Your task to perform on an android device: open the mobile data screen to see how much data has been used Image 0: 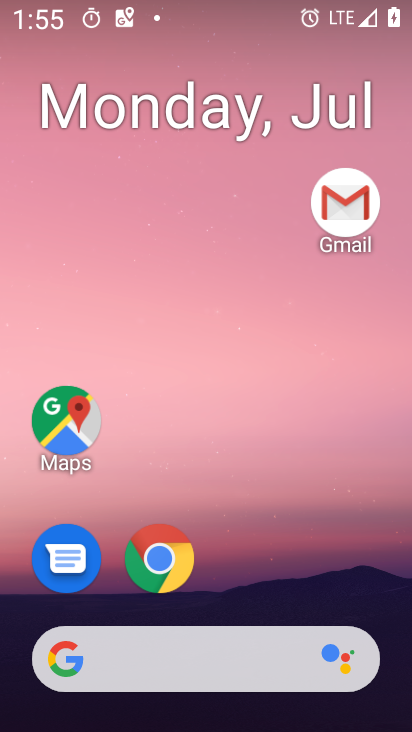
Step 0: drag from (382, 574) to (385, 84)
Your task to perform on an android device: open the mobile data screen to see how much data has been used Image 1: 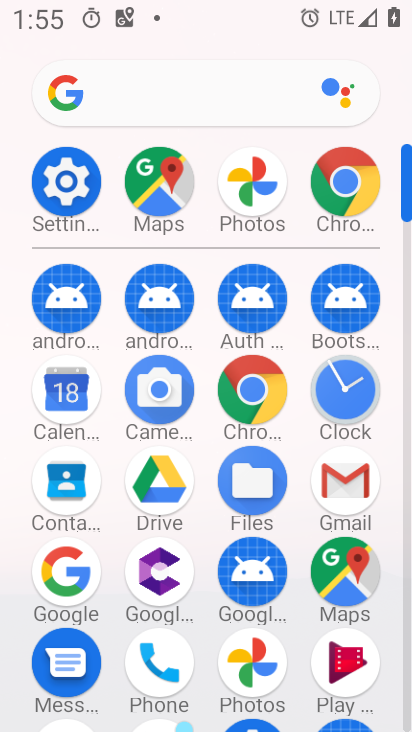
Step 1: click (73, 188)
Your task to perform on an android device: open the mobile data screen to see how much data has been used Image 2: 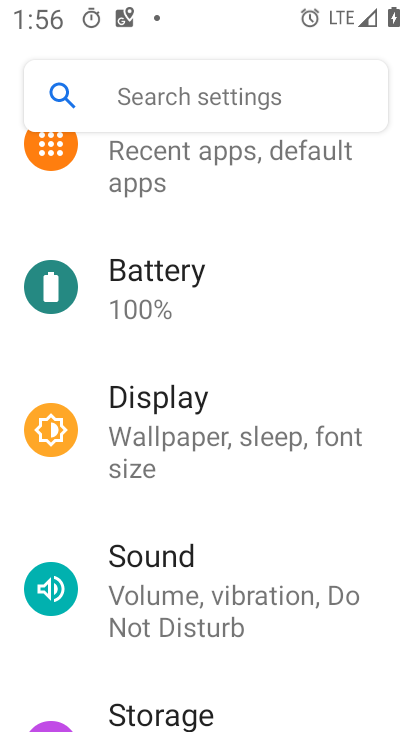
Step 2: drag from (332, 263) to (335, 370)
Your task to perform on an android device: open the mobile data screen to see how much data has been used Image 3: 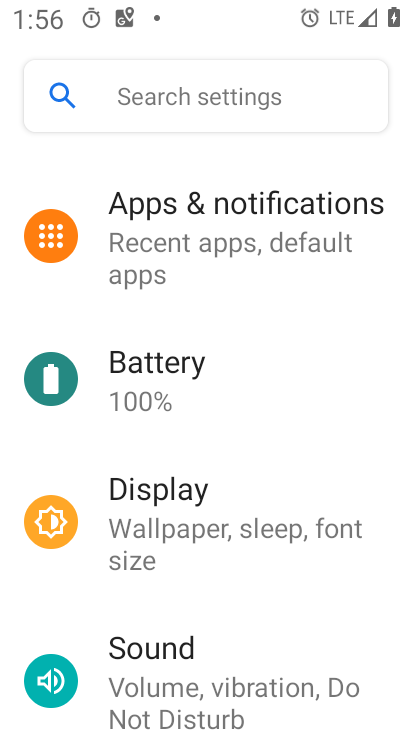
Step 3: drag from (368, 296) to (362, 382)
Your task to perform on an android device: open the mobile data screen to see how much data has been used Image 4: 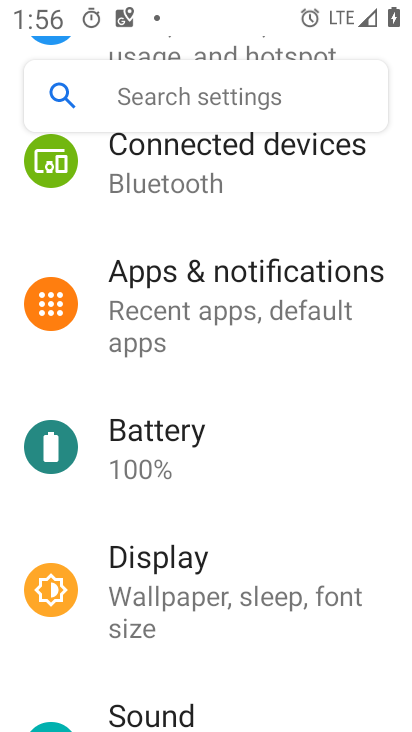
Step 4: drag from (359, 307) to (365, 385)
Your task to perform on an android device: open the mobile data screen to see how much data has been used Image 5: 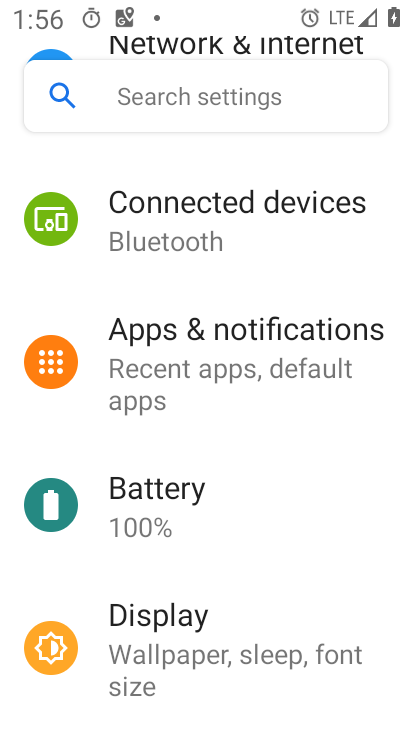
Step 5: drag from (366, 267) to (374, 368)
Your task to perform on an android device: open the mobile data screen to see how much data has been used Image 6: 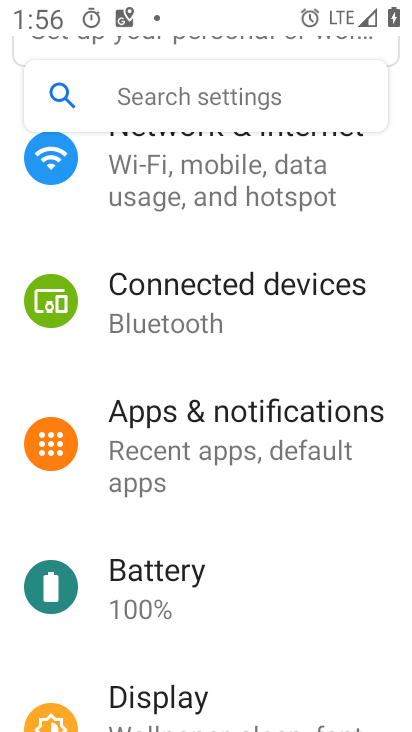
Step 6: drag from (376, 251) to (378, 344)
Your task to perform on an android device: open the mobile data screen to see how much data has been used Image 7: 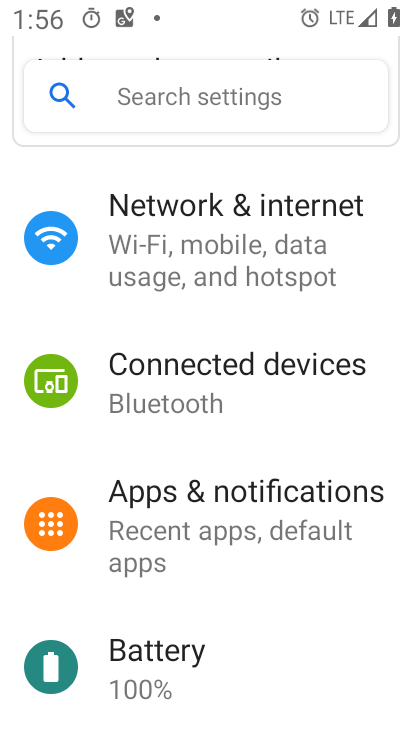
Step 7: drag from (374, 260) to (384, 435)
Your task to perform on an android device: open the mobile data screen to see how much data has been used Image 8: 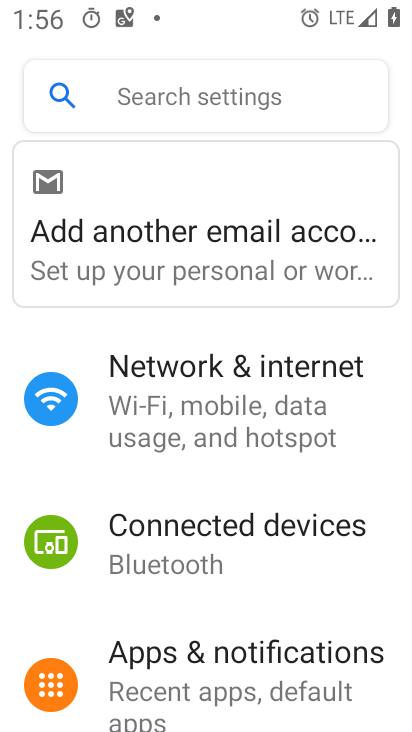
Step 8: click (298, 407)
Your task to perform on an android device: open the mobile data screen to see how much data has been used Image 9: 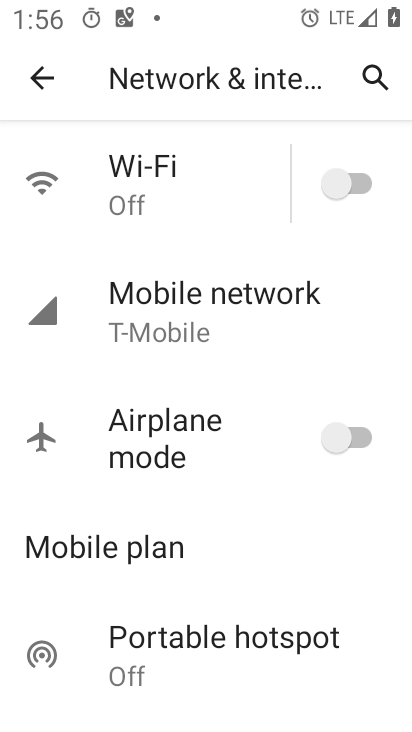
Step 9: click (256, 327)
Your task to perform on an android device: open the mobile data screen to see how much data has been used Image 10: 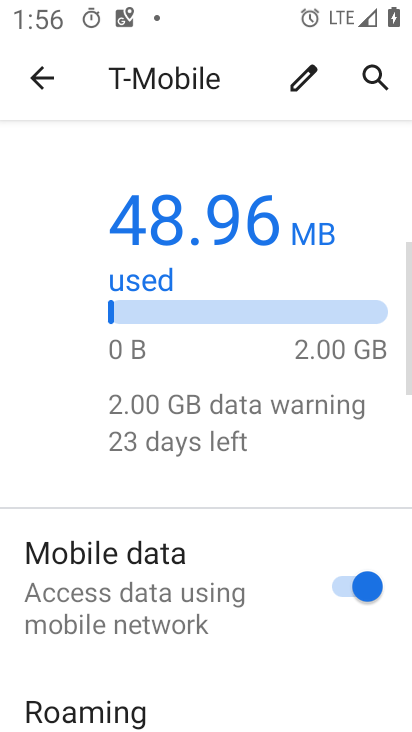
Step 10: drag from (255, 538) to (272, 443)
Your task to perform on an android device: open the mobile data screen to see how much data has been used Image 11: 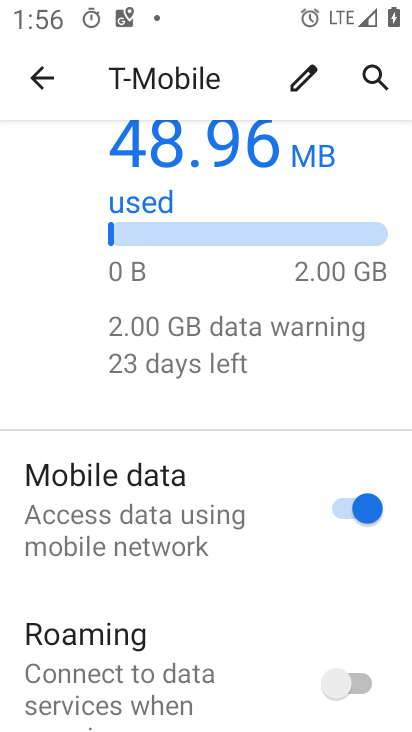
Step 11: drag from (275, 584) to (275, 441)
Your task to perform on an android device: open the mobile data screen to see how much data has been used Image 12: 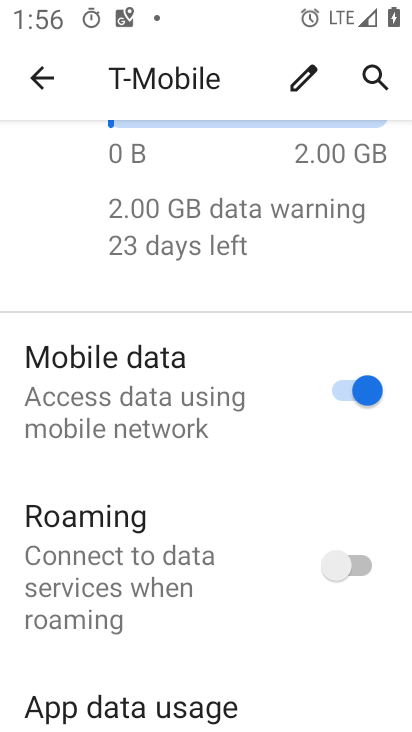
Step 12: drag from (259, 585) to (259, 432)
Your task to perform on an android device: open the mobile data screen to see how much data has been used Image 13: 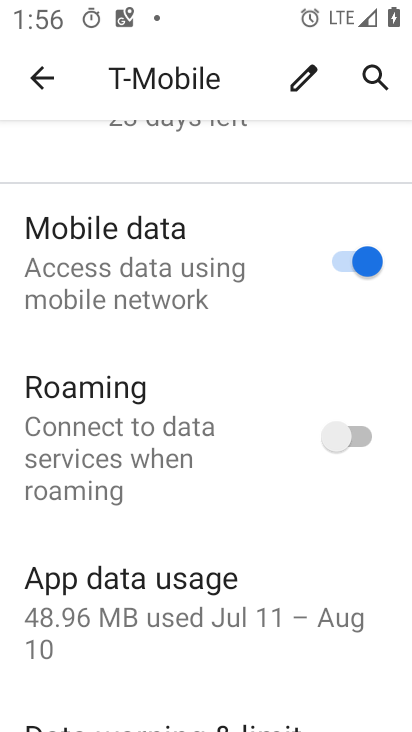
Step 13: drag from (252, 622) to (262, 450)
Your task to perform on an android device: open the mobile data screen to see how much data has been used Image 14: 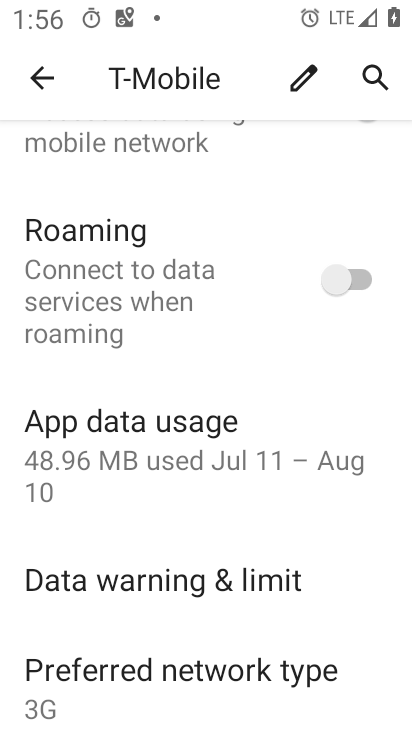
Step 14: drag from (239, 620) to (243, 504)
Your task to perform on an android device: open the mobile data screen to see how much data has been used Image 15: 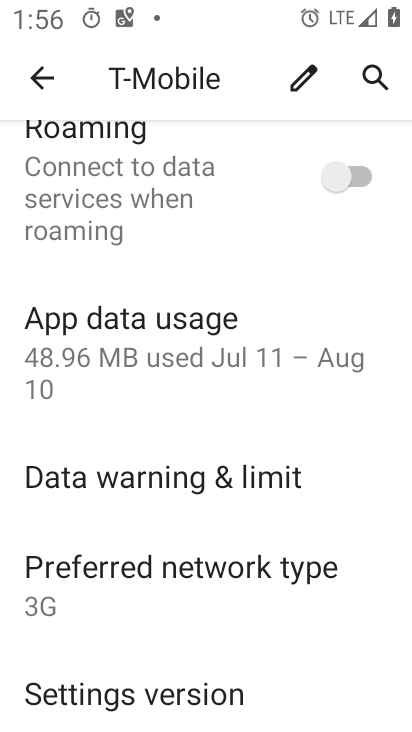
Step 15: click (237, 361)
Your task to perform on an android device: open the mobile data screen to see how much data has been used Image 16: 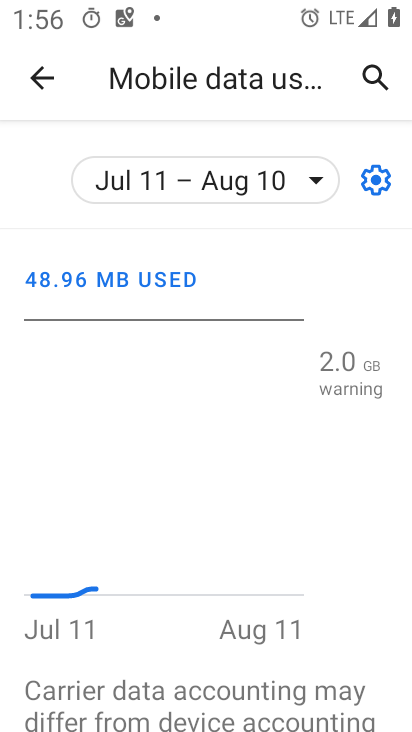
Step 16: task complete